Your task to perform on an android device: Search for a tv stand on Ikea Image 0: 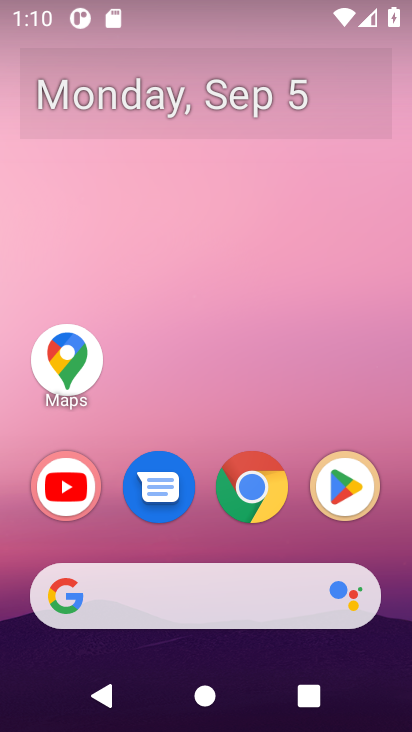
Step 0: click (247, 490)
Your task to perform on an android device: Search for a tv stand on Ikea Image 1: 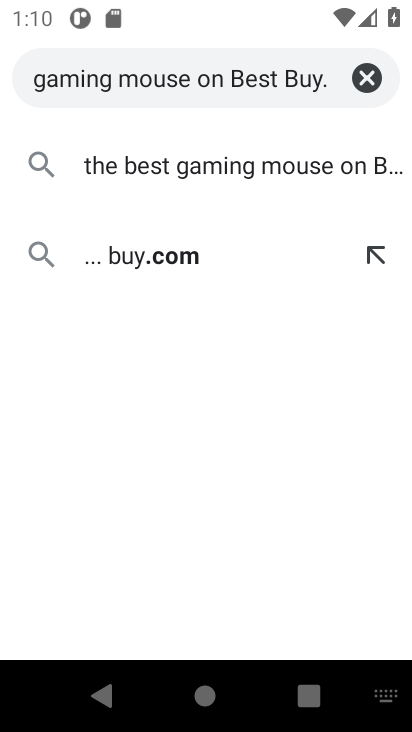
Step 1: click (369, 69)
Your task to perform on an android device: Search for a tv stand on Ikea Image 2: 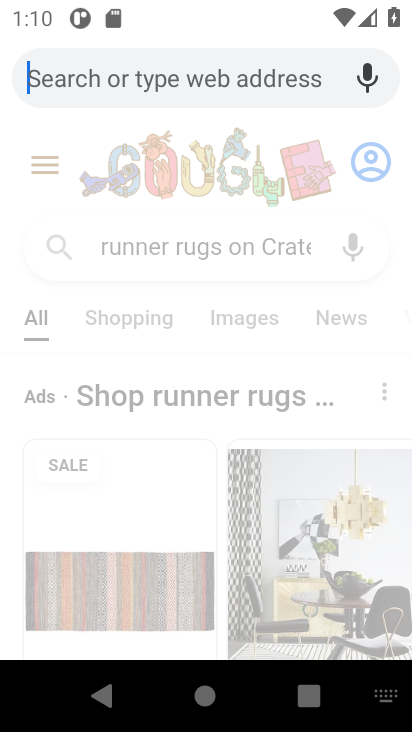
Step 2: click (86, 84)
Your task to perform on an android device: Search for a tv stand on Ikea Image 3: 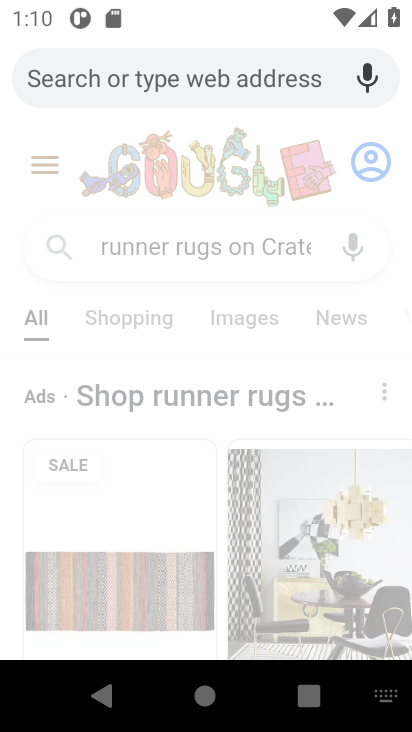
Step 3: type "tv stand on Ikea"
Your task to perform on an android device: Search for a tv stand on Ikea Image 4: 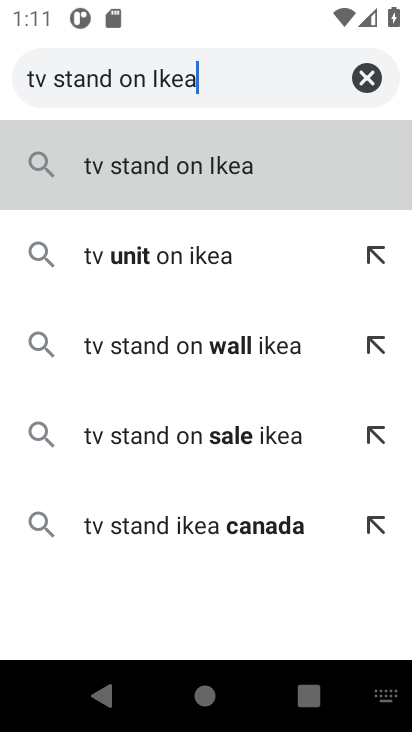
Step 4: click (207, 191)
Your task to perform on an android device: Search for a tv stand on Ikea Image 5: 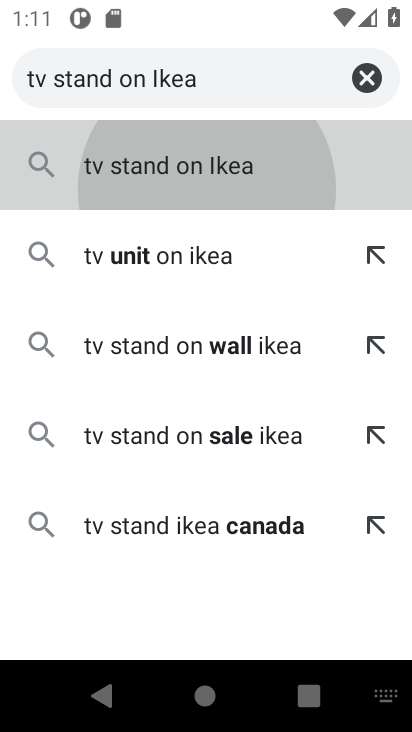
Step 5: click (207, 191)
Your task to perform on an android device: Search for a tv stand on Ikea Image 6: 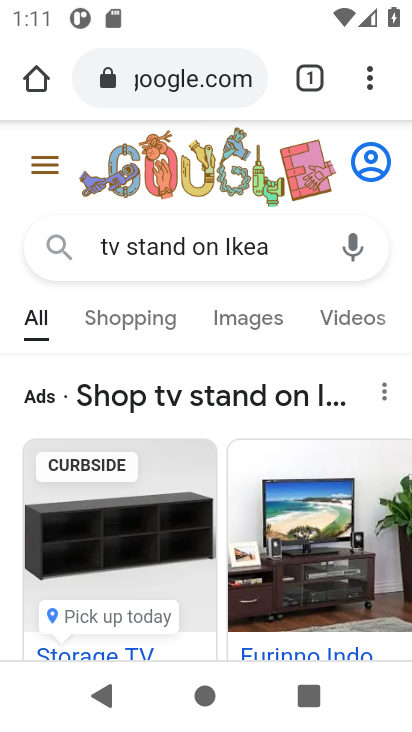
Step 6: task complete